Your task to perform on an android device: Search for logitech g pro on bestbuy, select the first entry, add it to the cart, then select checkout. Image 0: 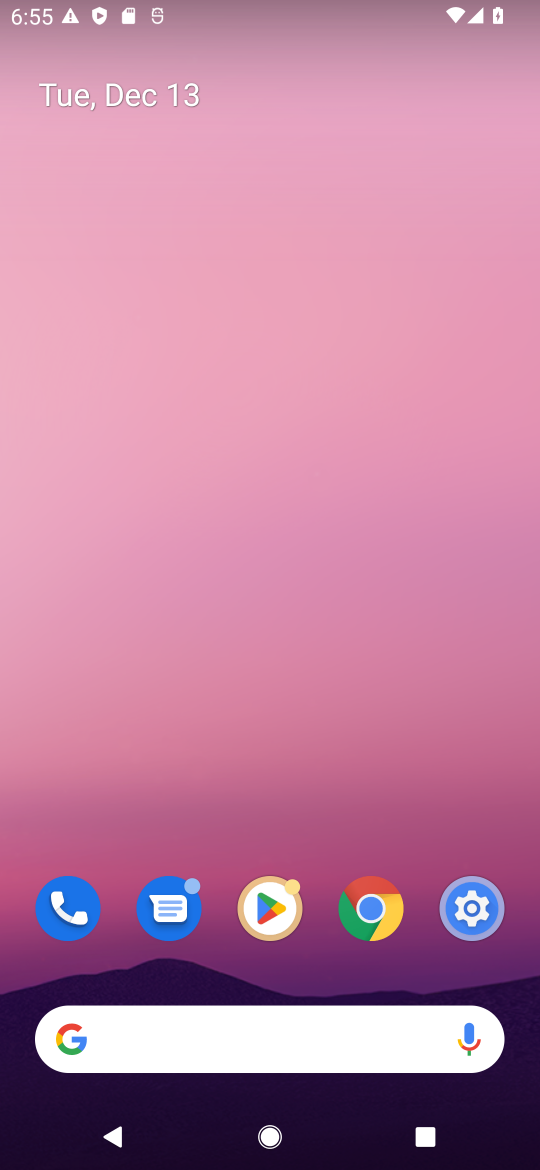
Step 0: press home button
Your task to perform on an android device: Search for logitech g pro on bestbuy, select the first entry, add it to the cart, then select checkout. Image 1: 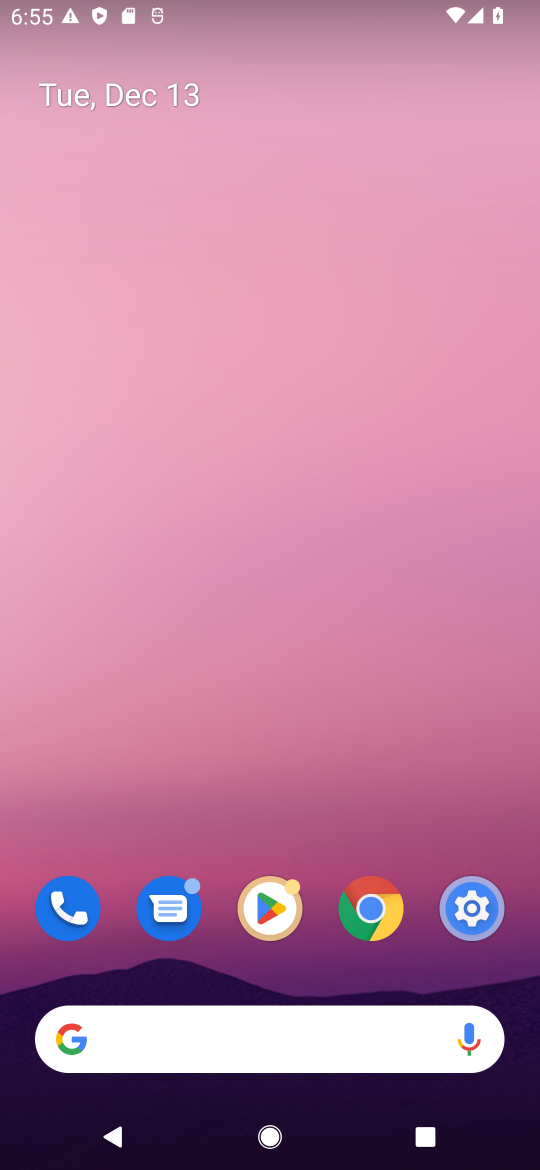
Step 1: click (127, 1040)
Your task to perform on an android device: Search for logitech g pro on bestbuy, select the first entry, add it to the cart, then select checkout. Image 2: 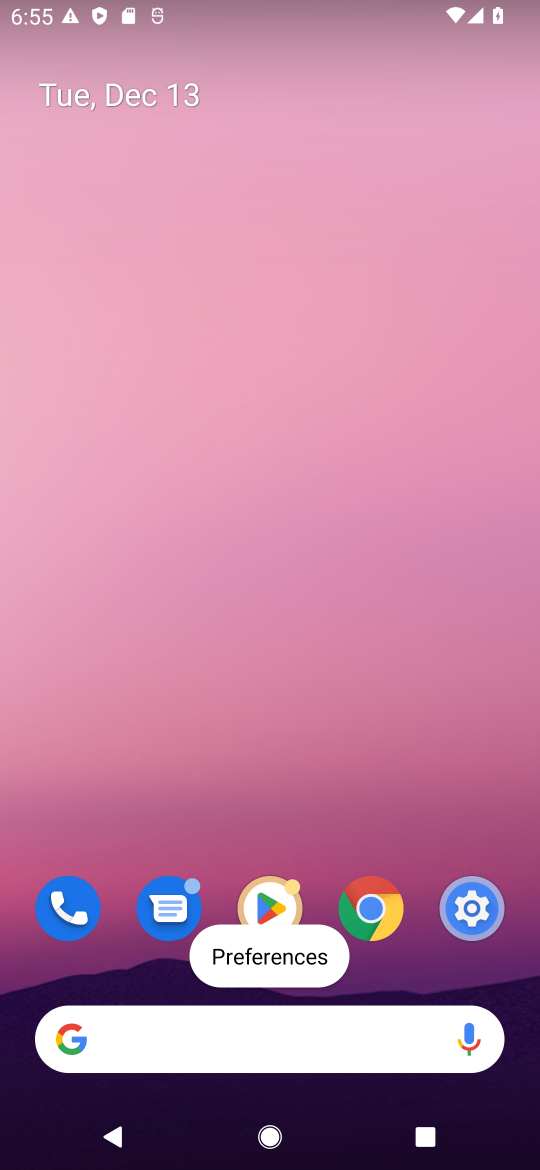
Step 2: click (118, 1023)
Your task to perform on an android device: Search for logitech g pro on bestbuy, select the first entry, add it to the cart, then select checkout. Image 3: 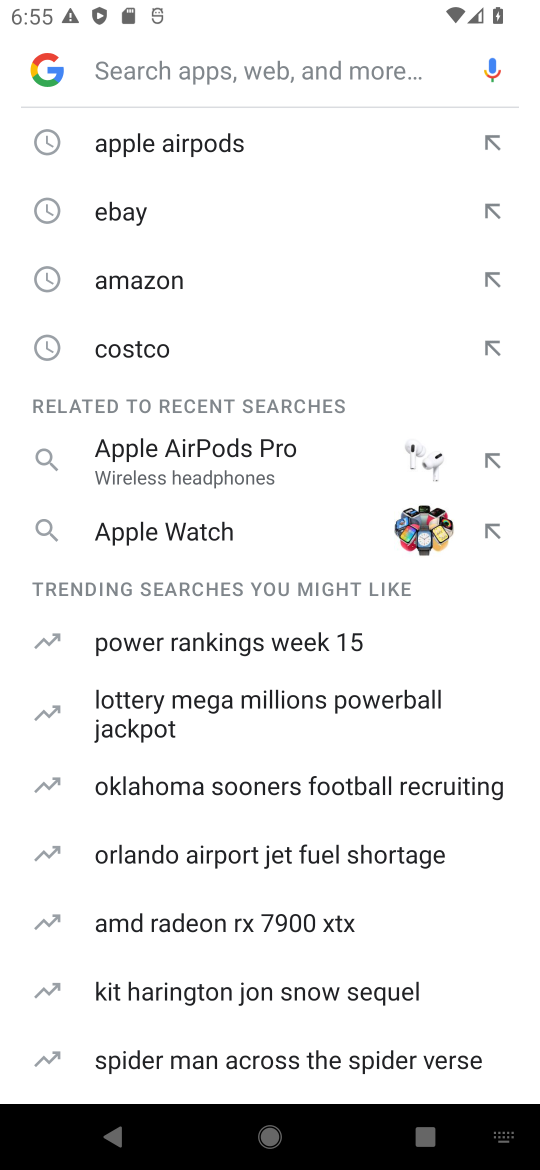
Step 3: type " bestbuy"
Your task to perform on an android device: Search for logitech g pro on bestbuy, select the first entry, add it to the cart, then select checkout. Image 4: 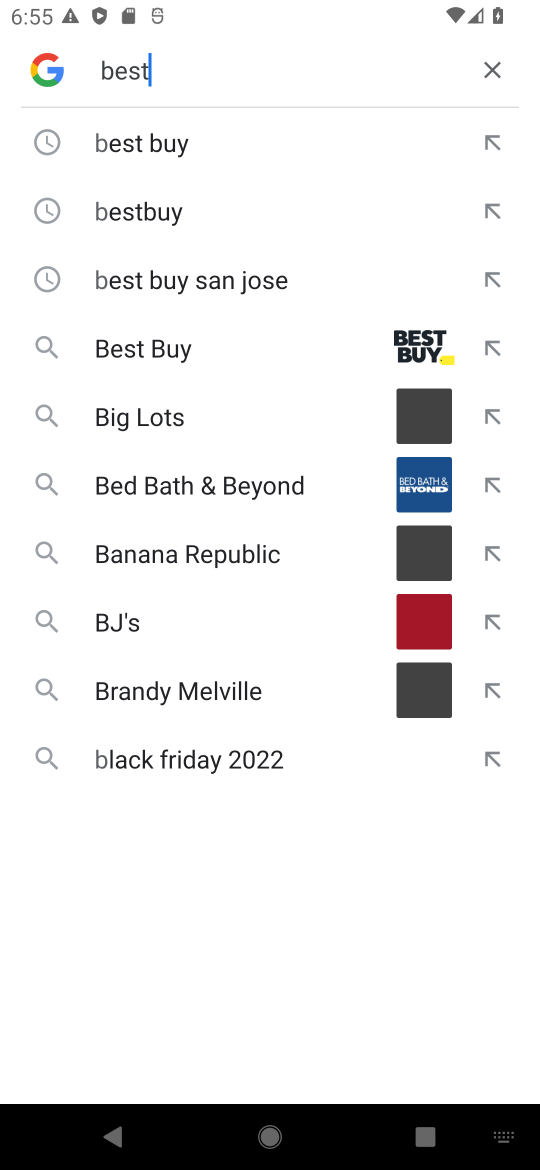
Step 4: press enter
Your task to perform on an android device: Search for logitech g pro on bestbuy, select the first entry, add it to the cart, then select checkout. Image 5: 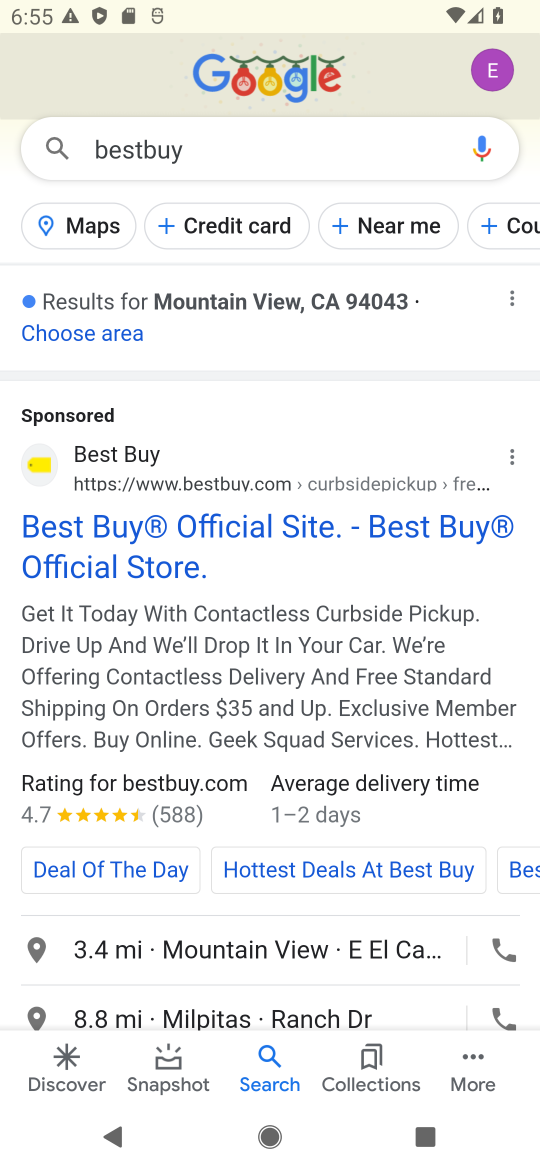
Step 5: click (70, 535)
Your task to perform on an android device: Search for logitech g pro on bestbuy, select the first entry, add it to the cart, then select checkout. Image 6: 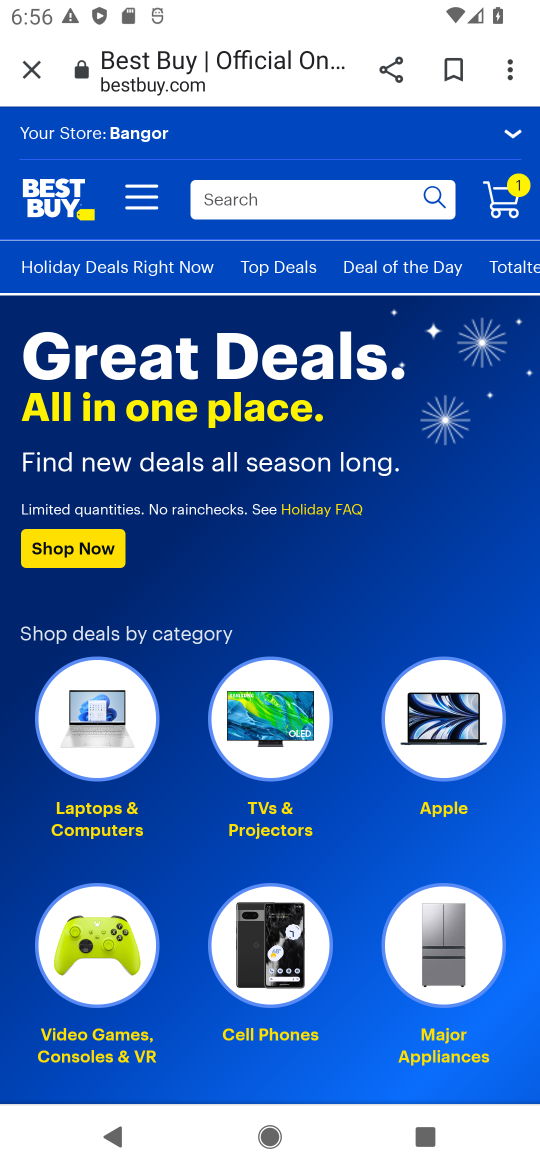
Step 6: click (270, 202)
Your task to perform on an android device: Search for logitech g pro on bestbuy, select the first entry, add it to the cart, then select checkout. Image 7: 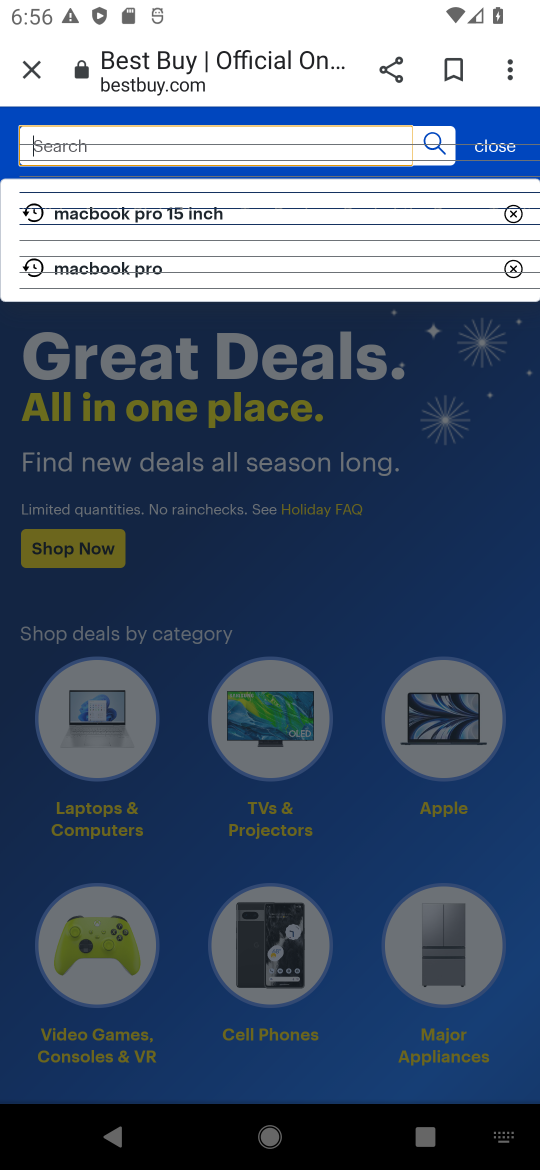
Step 7: press enter
Your task to perform on an android device: Search for logitech g pro on bestbuy, select the first entry, add it to the cart, then select checkout. Image 8: 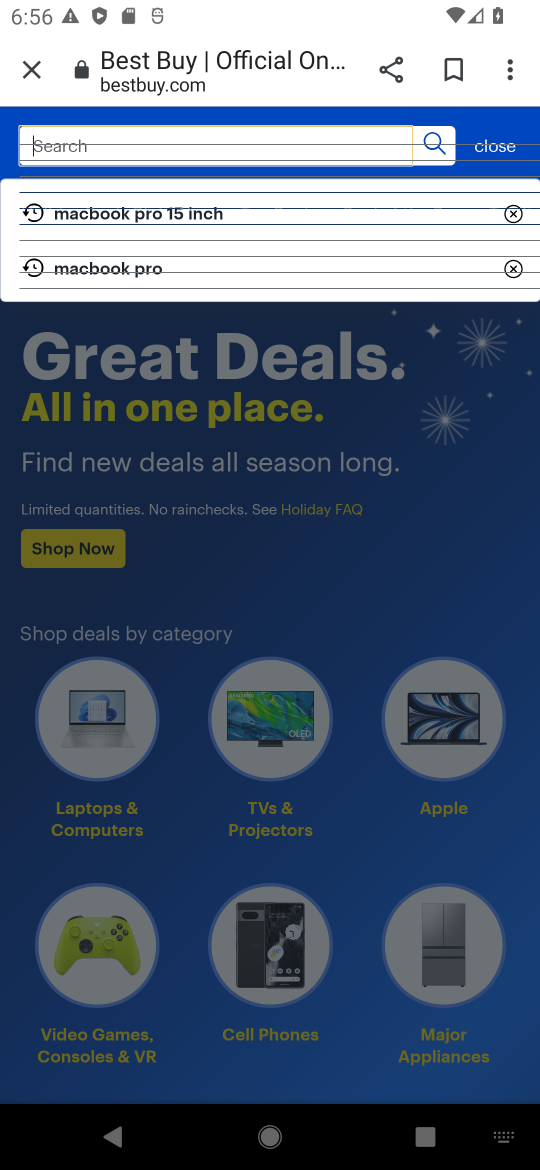
Step 8: type " logitech g pro"
Your task to perform on an android device: Search for logitech g pro on bestbuy, select the first entry, add it to the cart, then select checkout. Image 9: 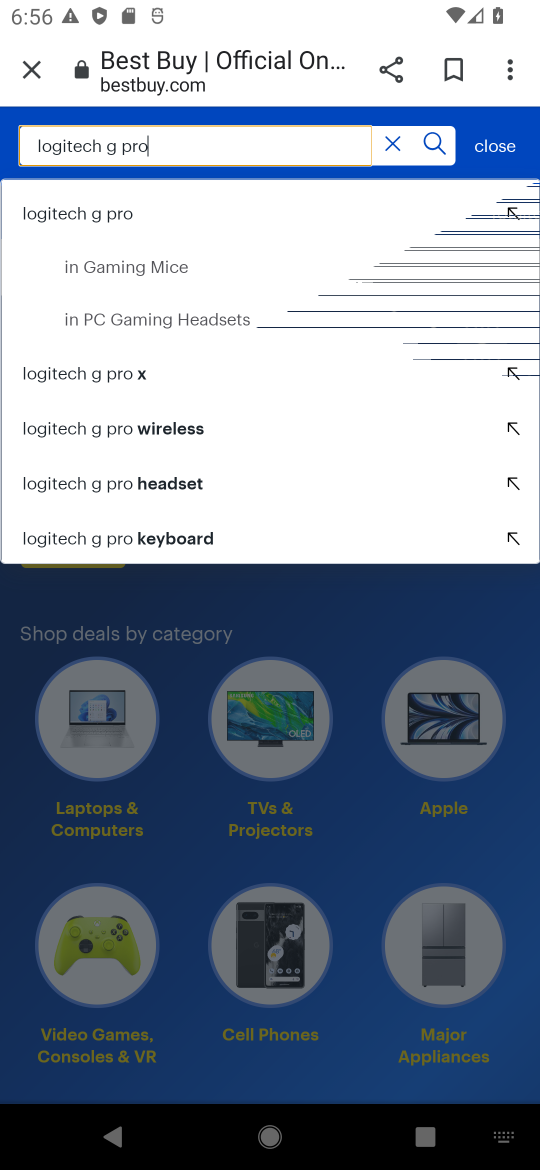
Step 9: press enter
Your task to perform on an android device: Search for logitech g pro on bestbuy, select the first entry, add it to the cart, then select checkout. Image 10: 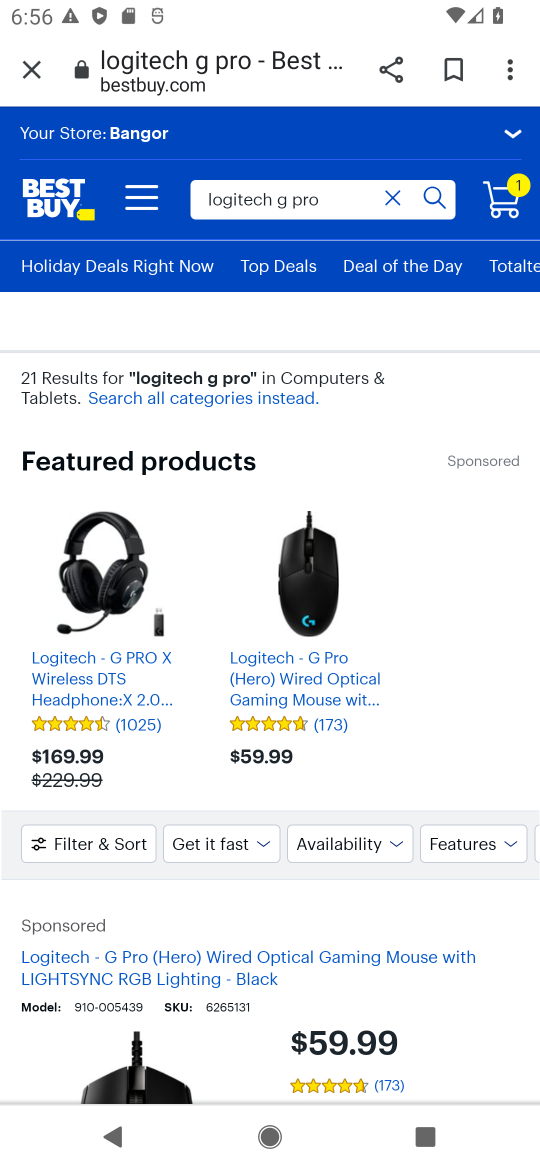
Step 10: drag from (232, 1017) to (253, 481)
Your task to perform on an android device: Search for logitech g pro on bestbuy, select the first entry, add it to the cart, then select checkout. Image 11: 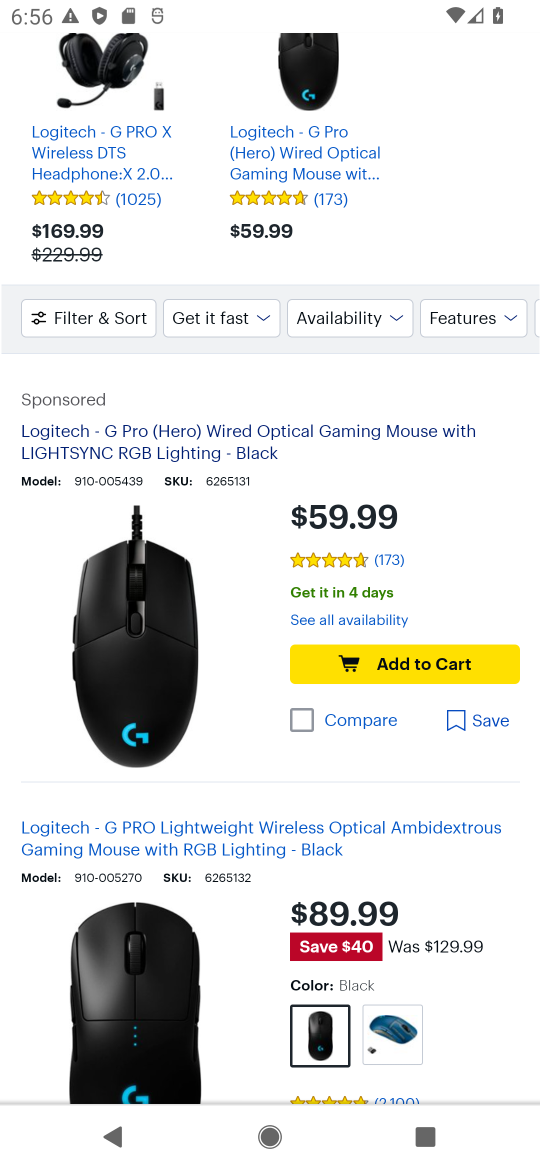
Step 11: click (419, 666)
Your task to perform on an android device: Search for logitech g pro on bestbuy, select the first entry, add it to the cart, then select checkout. Image 12: 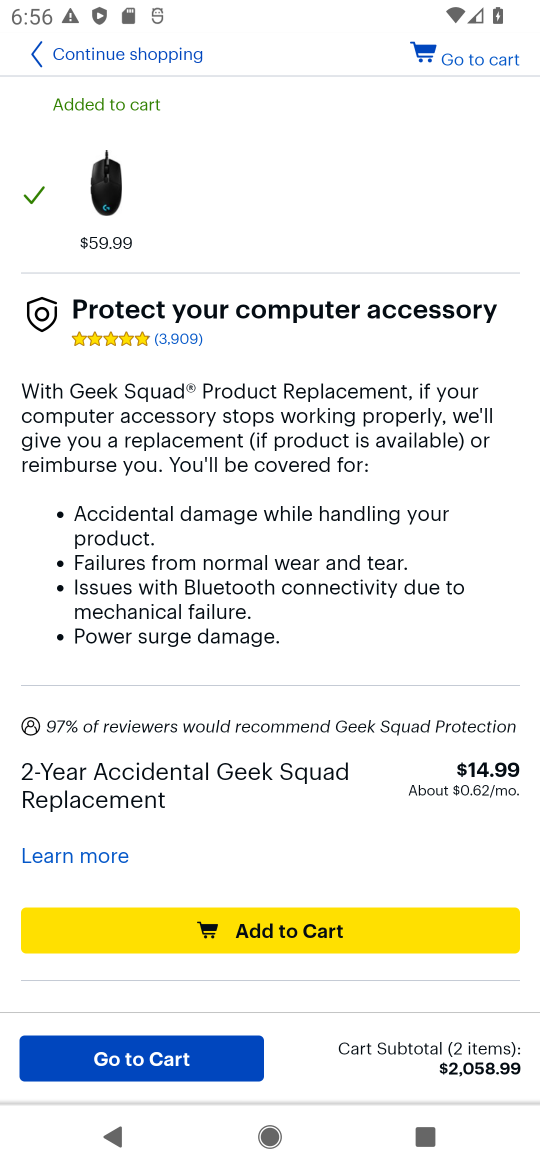
Step 12: click (135, 1060)
Your task to perform on an android device: Search for logitech g pro on bestbuy, select the first entry, add it to the cart, then select checkout. Image 13: 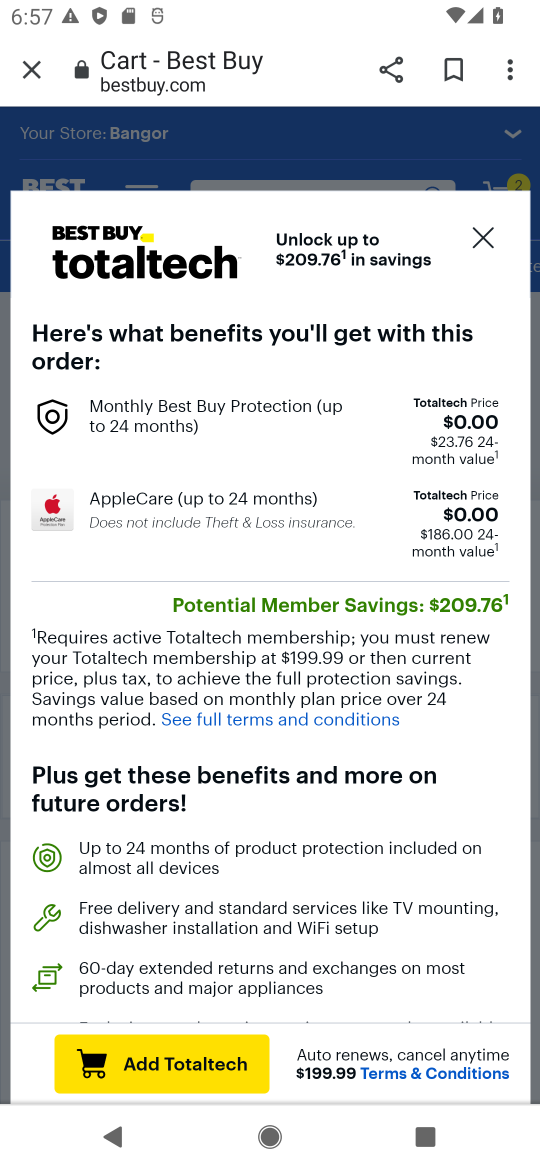
Step 13: click (479, 241)
Your task to perform on an android device: Search for logitech g pro on bestbuy, select the first entry, add it to the cart, then select checkout. Image 14: 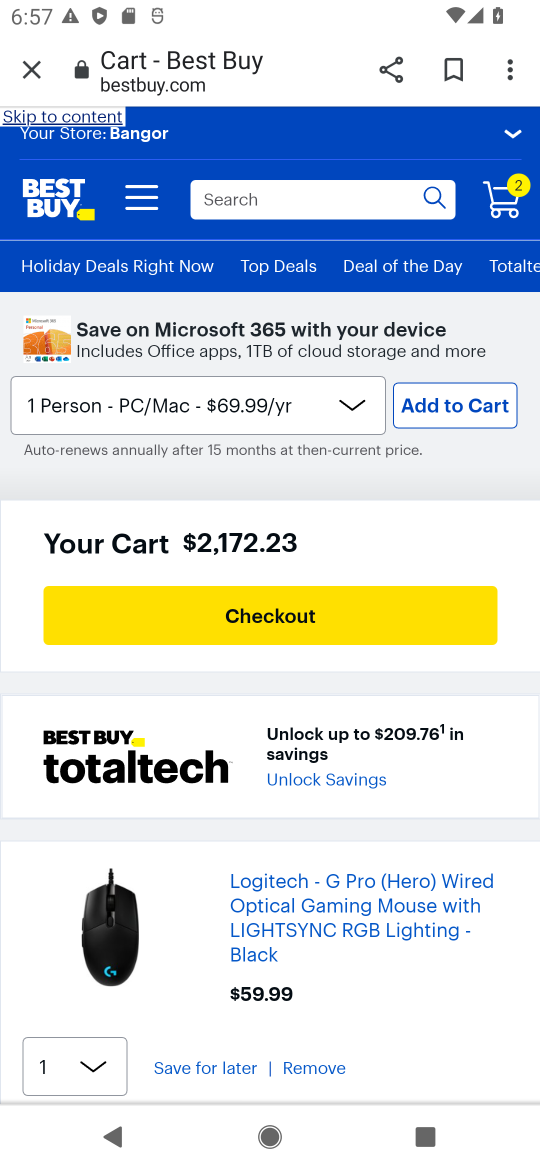
Step 14: click (248, 619)
Your task to perform on an android device: Search for logitech g pro on bestbuy, select the first entry, add it to the cart, then select checkout. Image 15: 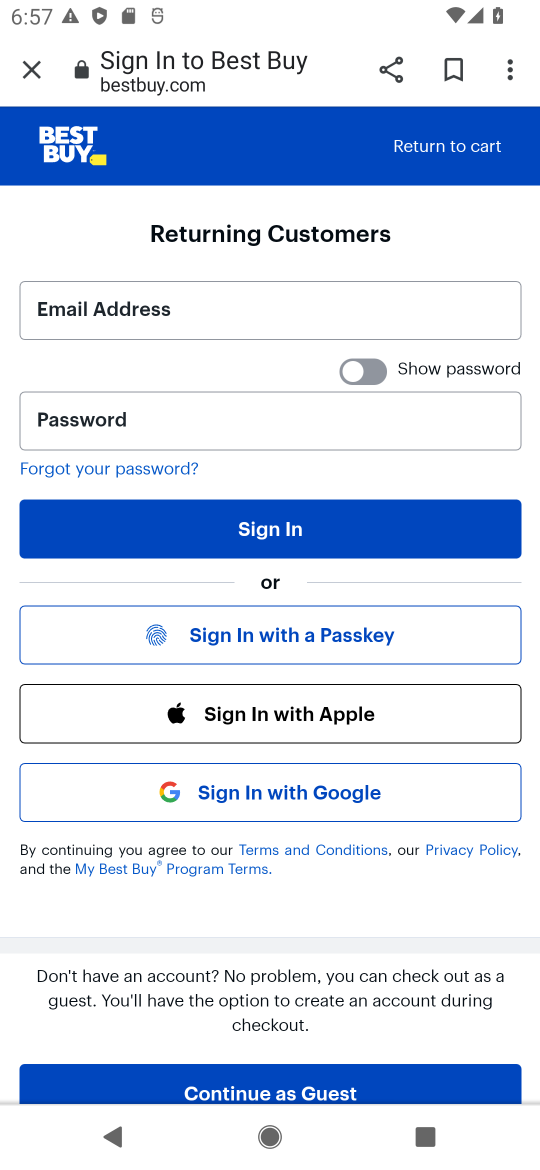
Step 15: task complete